Your task to perform on an android device: clear history in the chrome app Image 0: 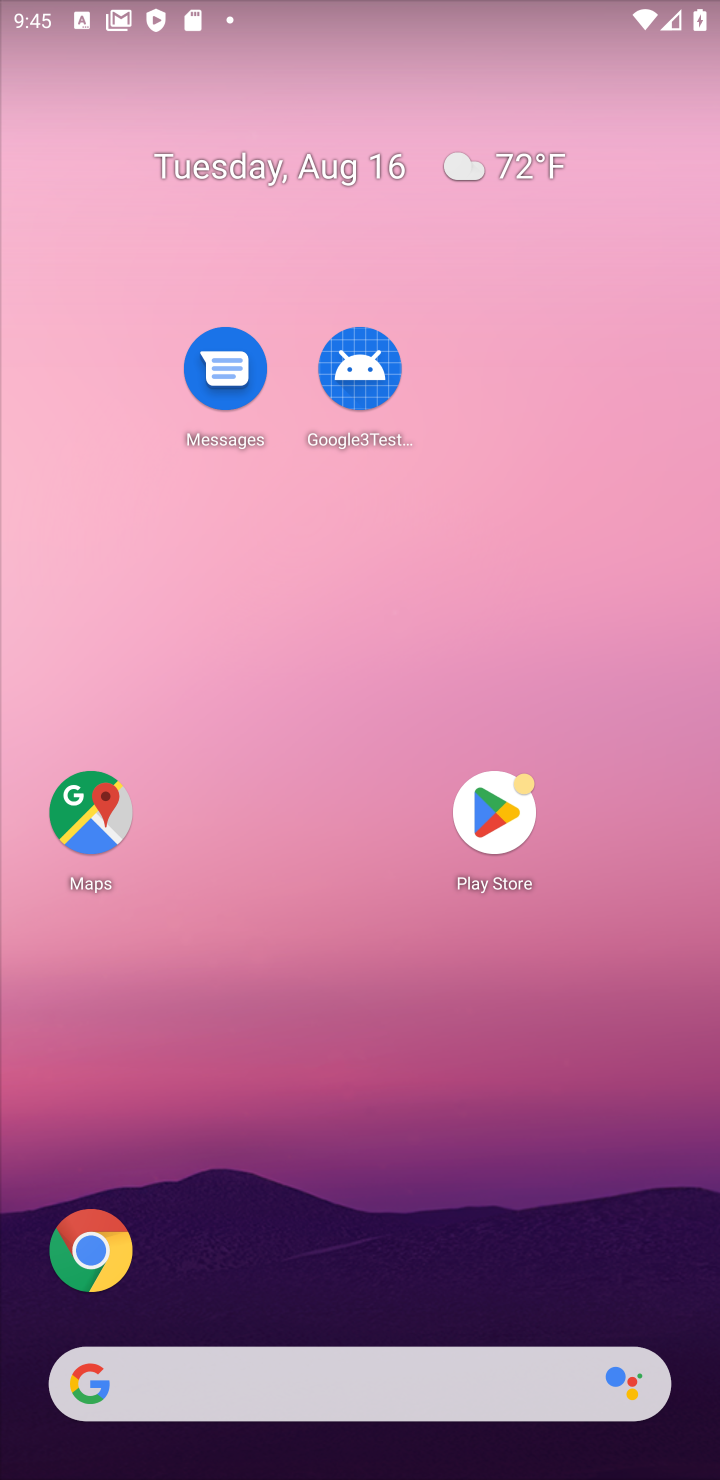
Step 0: click (83, 1251)
Your task to perform on an android device: clear history in the chrome app Image 1: 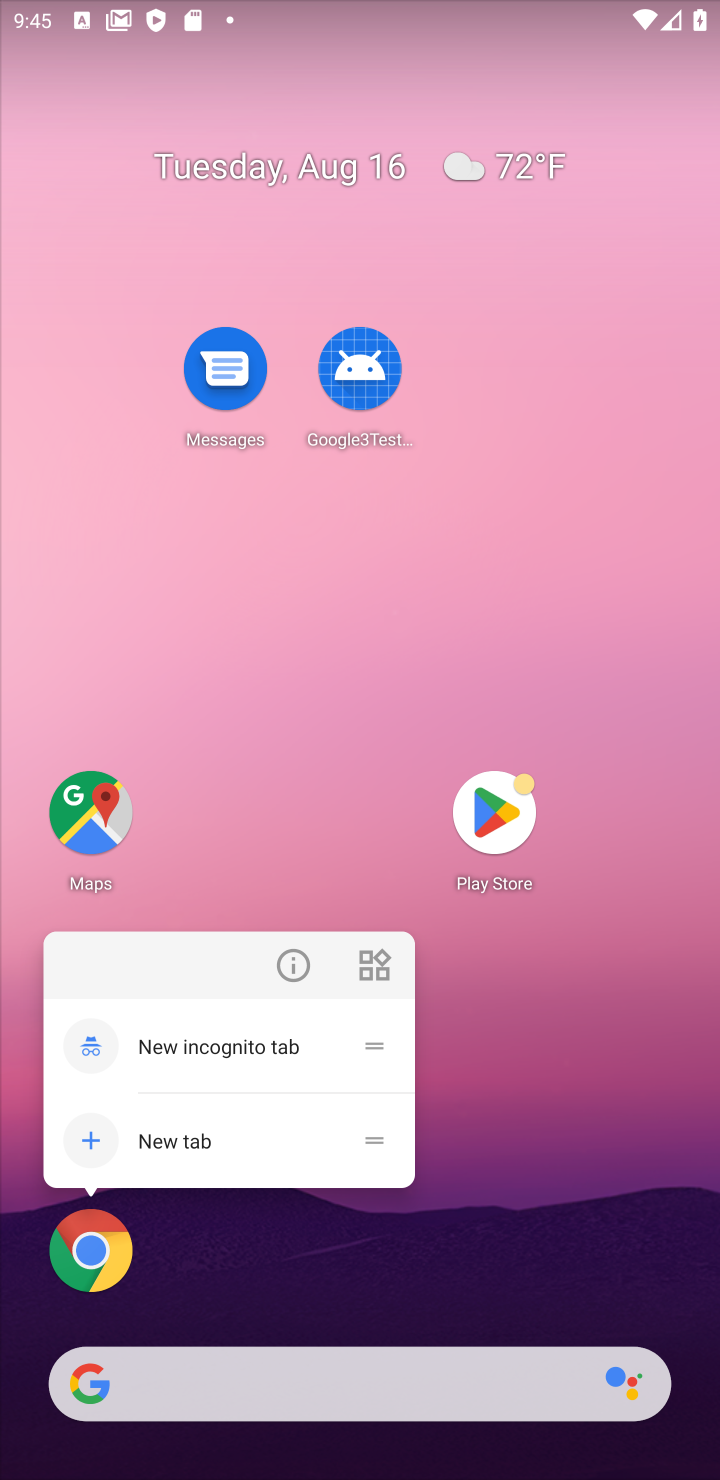
Step 1: click (83, 1251)
Your task to perform on an android device: clear history in the chrome app Image 2: 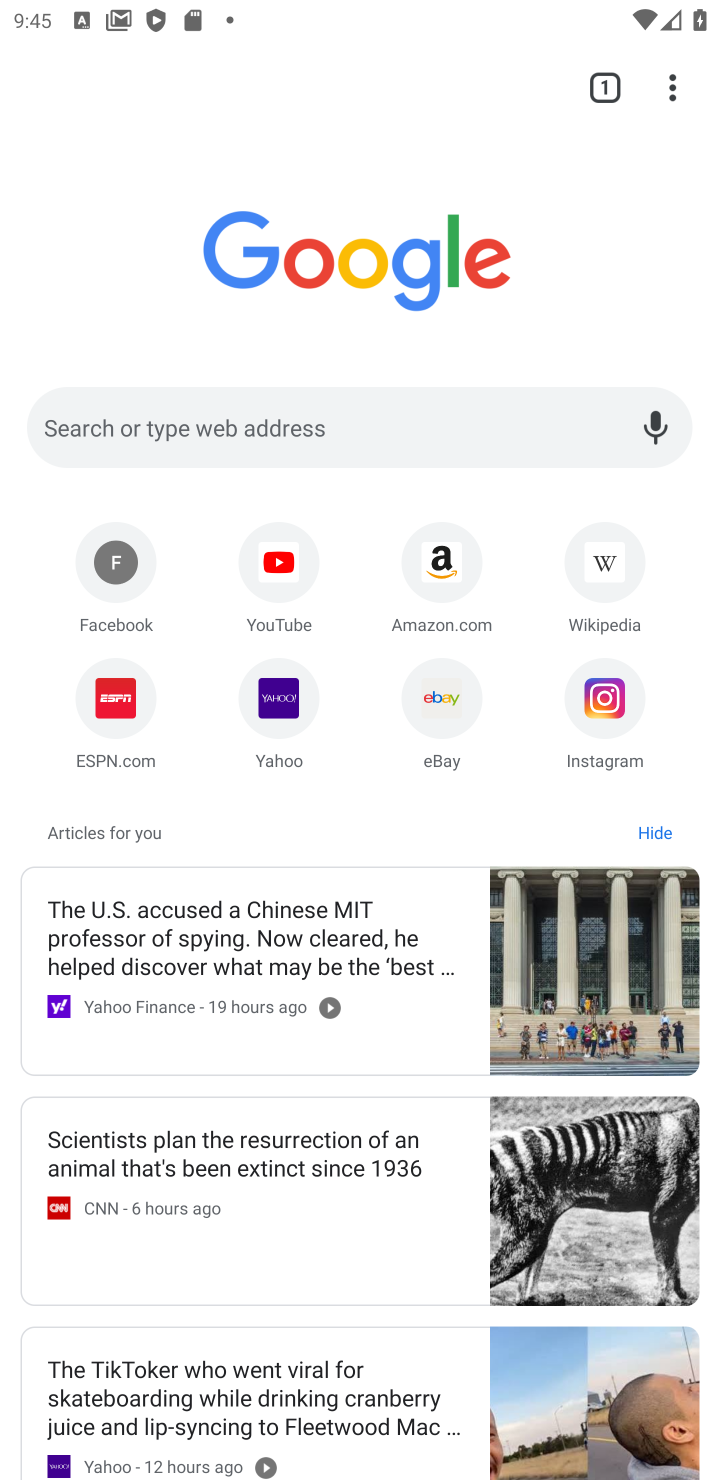
Step 2: click (691, 82)
Your task to perform on an android device: clear history in the chrome app Image 3: 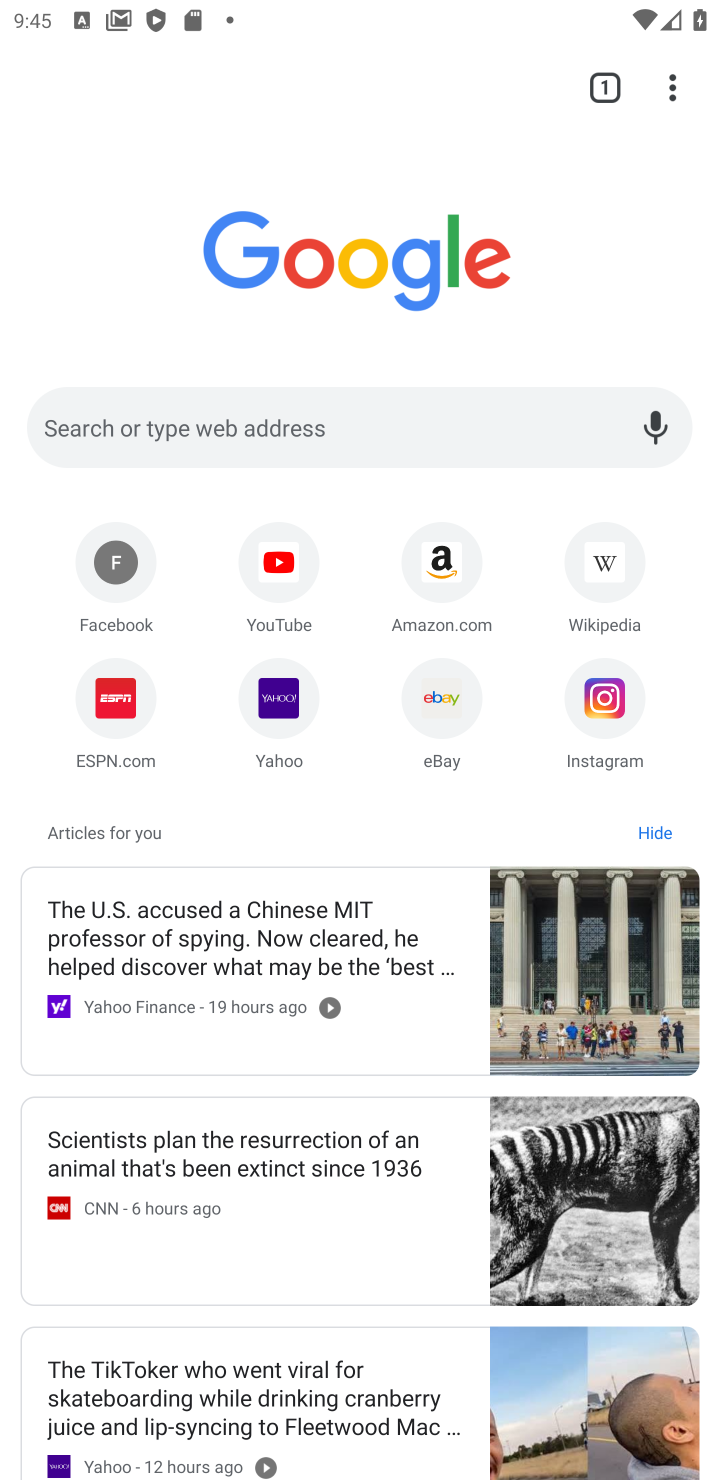
Step 3: click (691, 82)
Your task to perform on an android device: clear history in the chrome app Image 4: 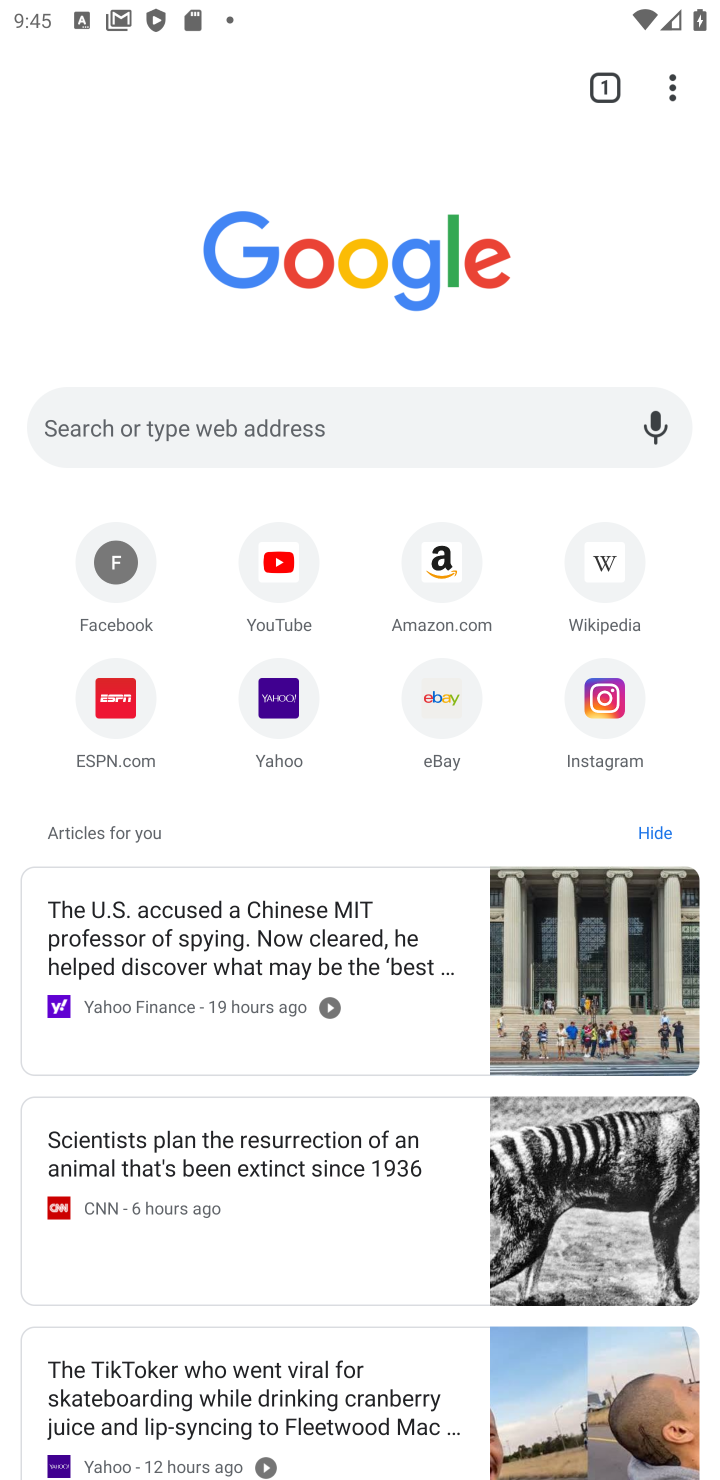
Step 4: click (680, 79)
Your task to perform on an android device: clear history in the chrome app Image 5: 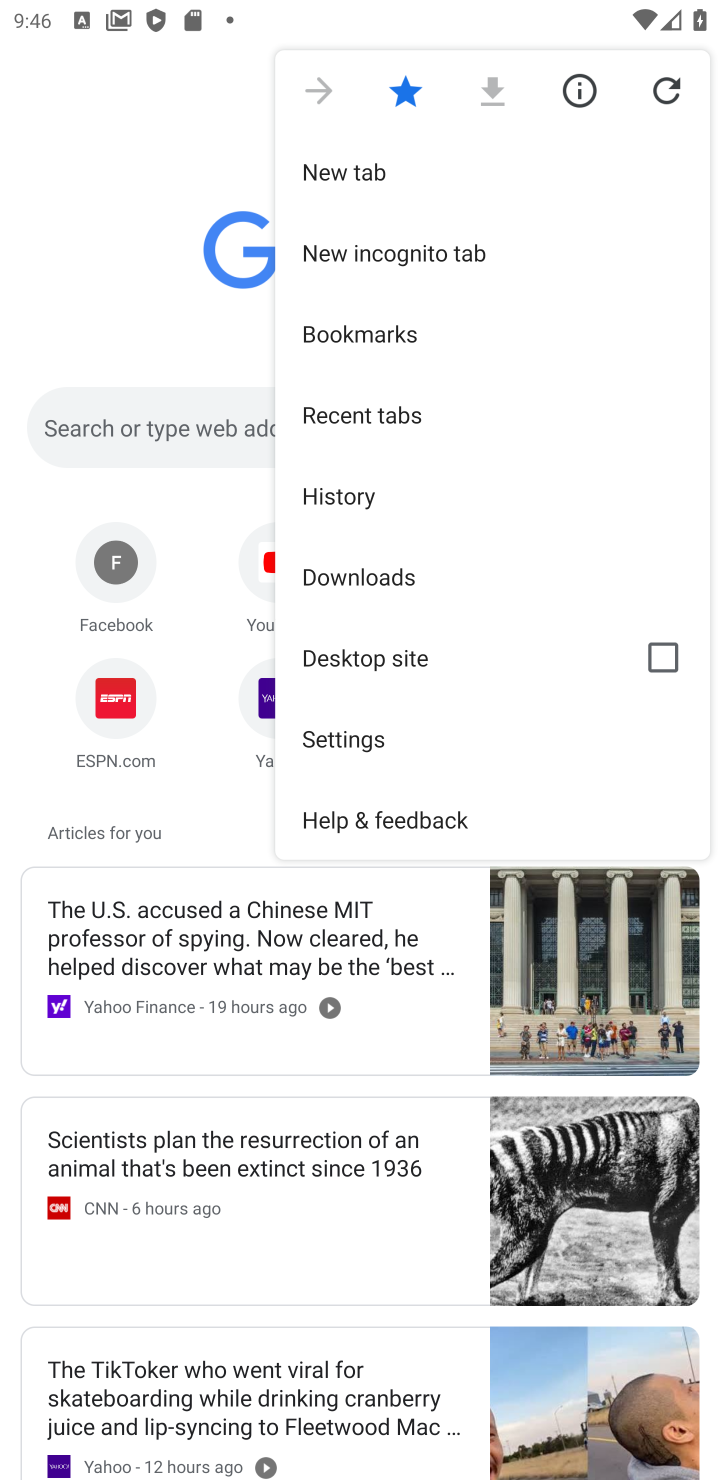
Step 5: click (536, 475)
Your task to perform on an android device: clear history in the chrome app Image 6: 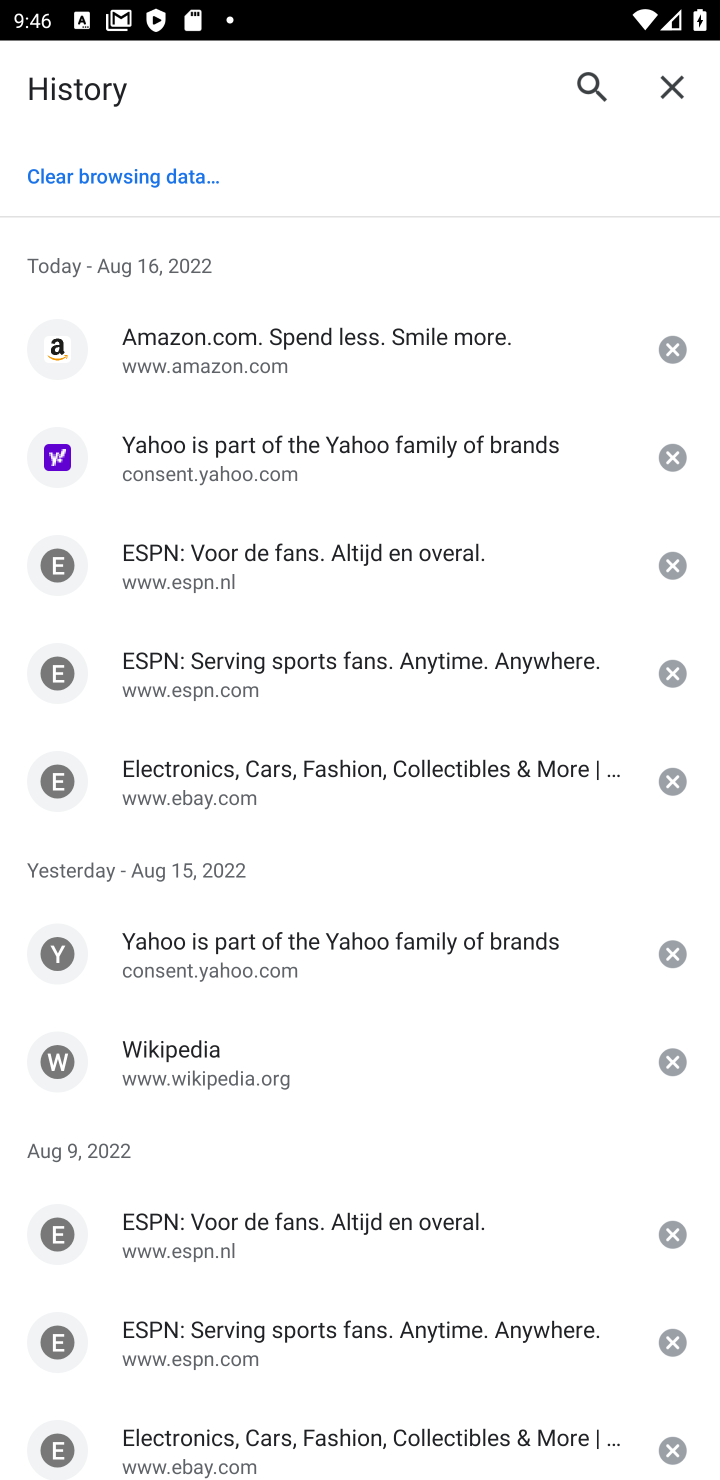
Step 6: click (179, 184)
Your task to perform on an android device: clear history in the chrome app Image 7: 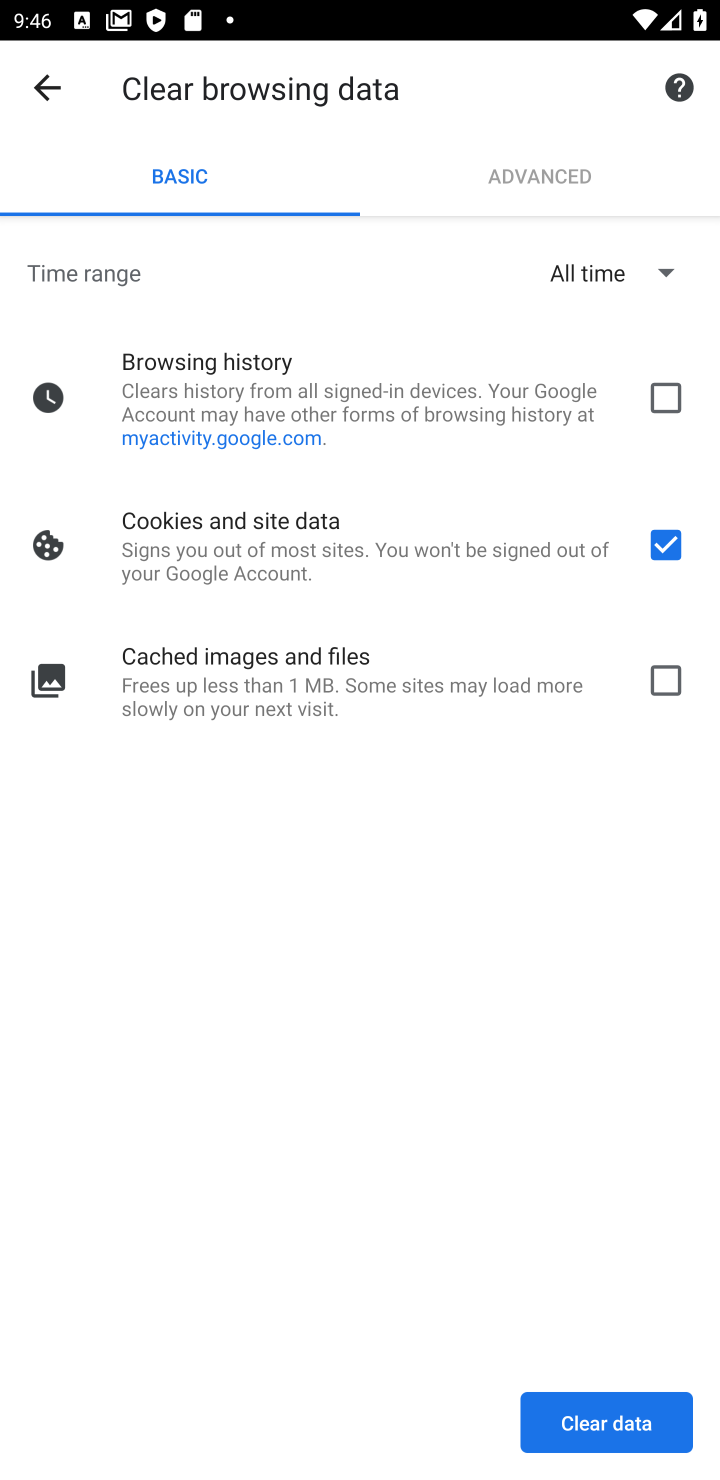
Step 7: click (170, 174)
Your task to perform on an android device: clear history in the chrome app Image 8: 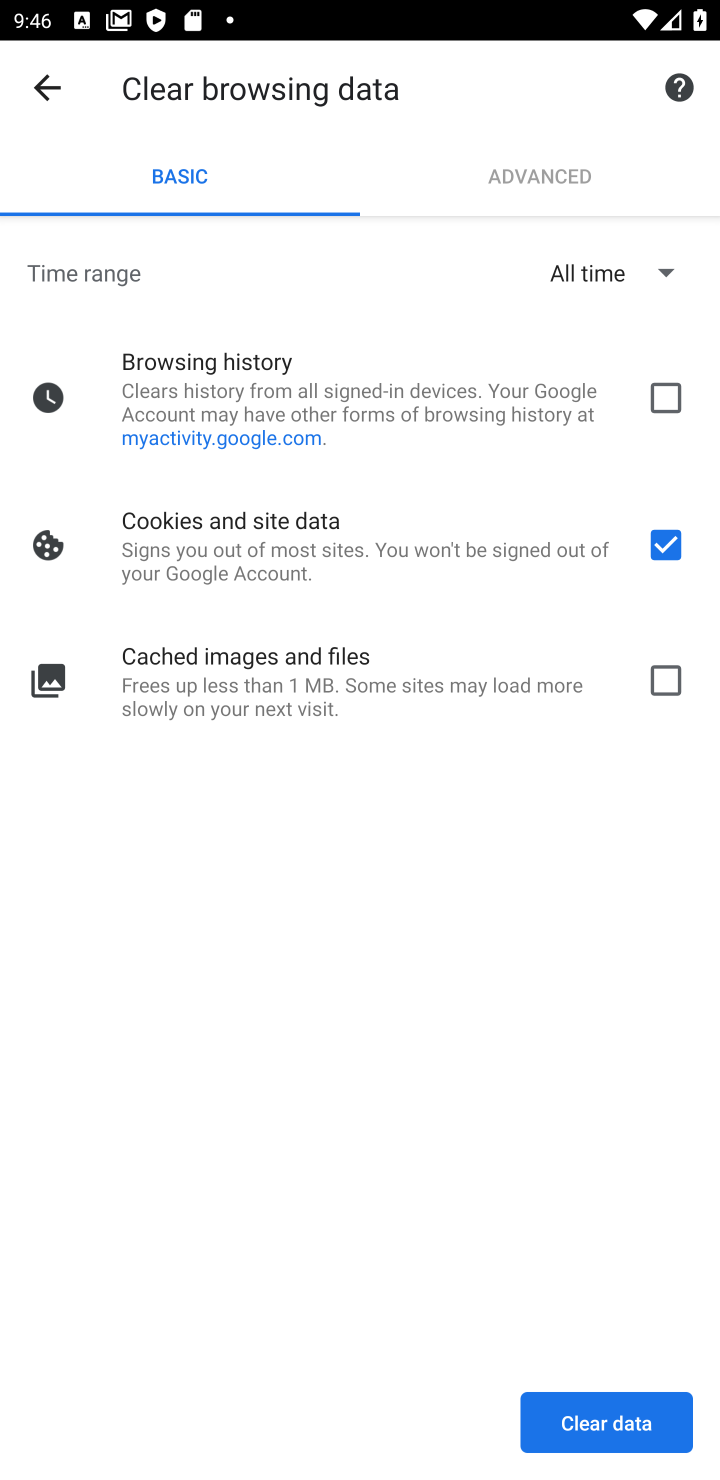
Step 8: click (662, 405)
Your task to perform on an android device: clear history in the chrome app Image 9: 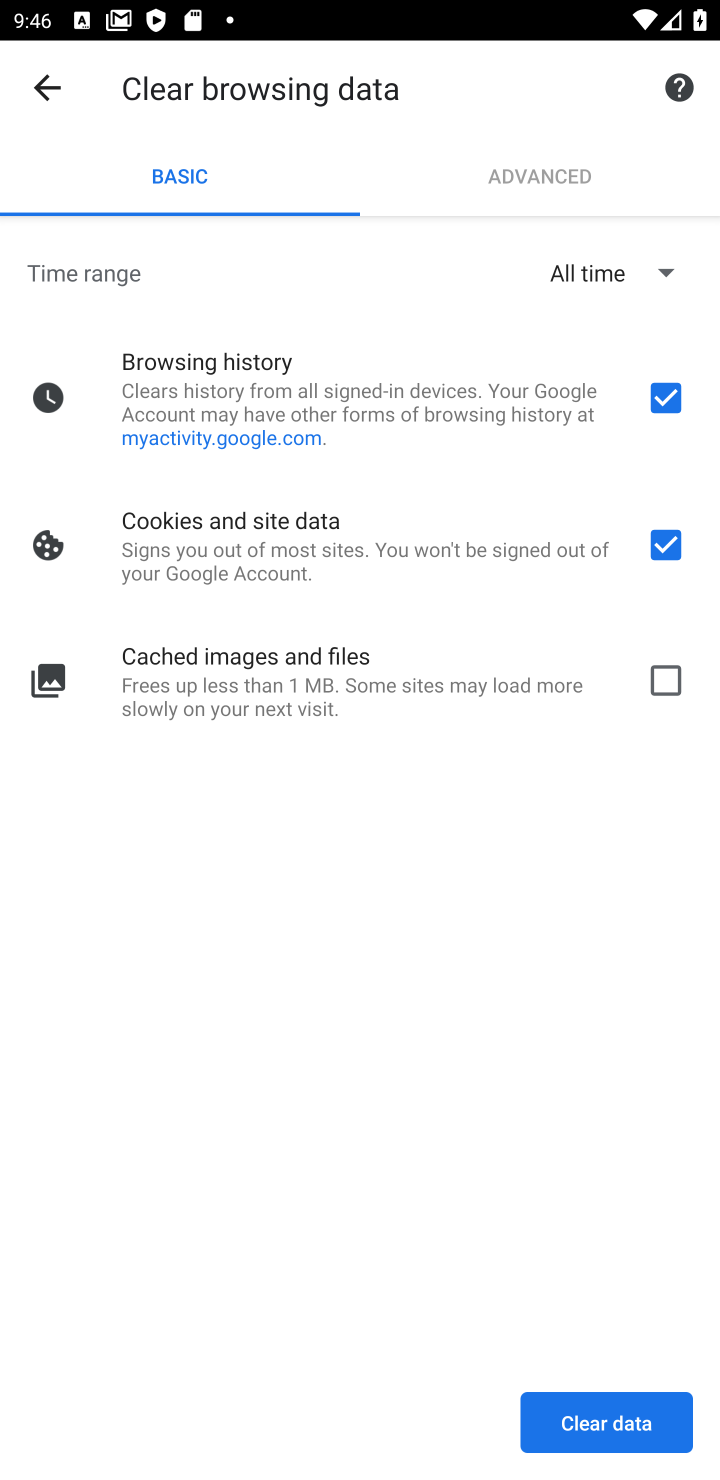
Step 9: click (662, 537)
Your task to perform on an android device: clear history in the chrome app Image 10: 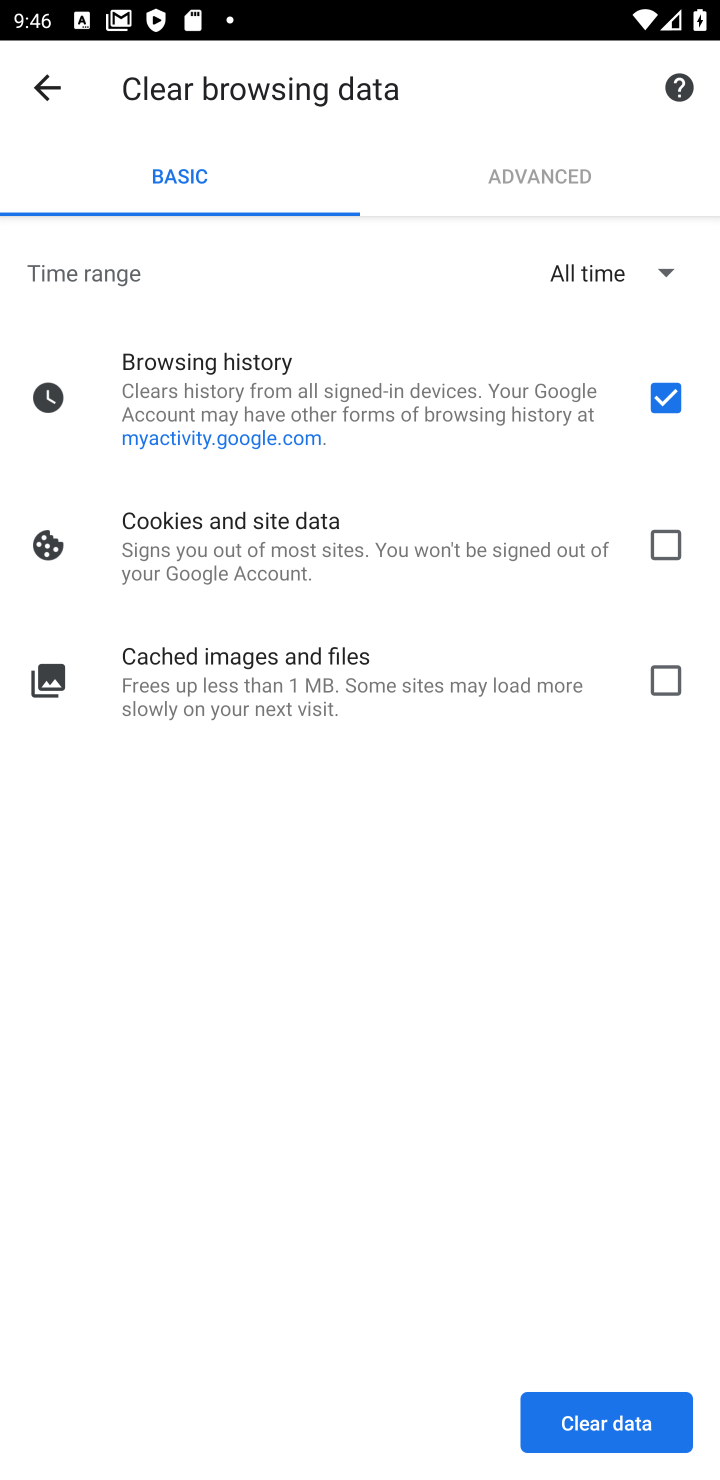
Step 10: click (564, 1420)
Your task to perform on an android device: clear history in the chrome app Image 11: 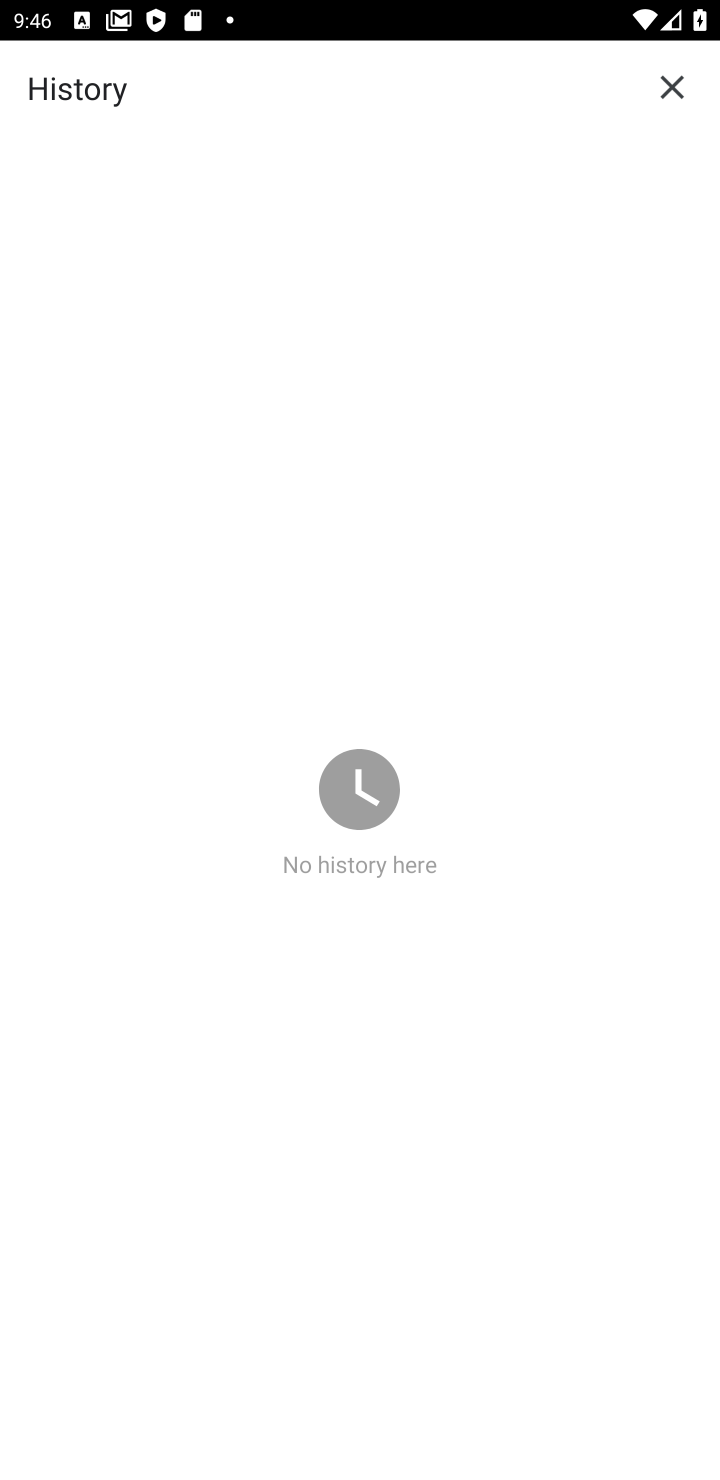
Step 11: task complete